Your task to perform on an android device: see tabs open on other devices in the chrome app Image 0: 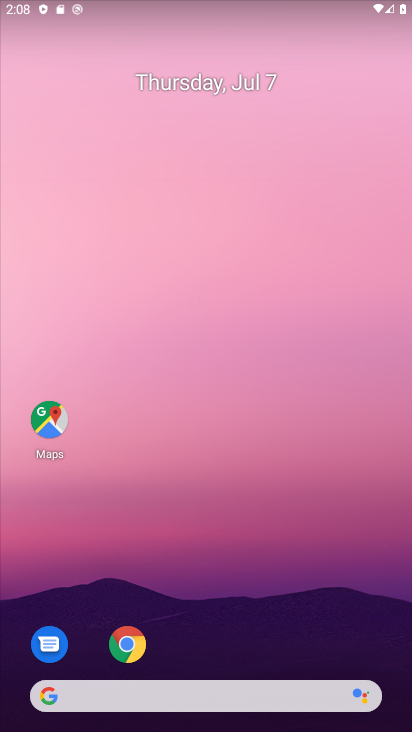
Step 0: drag from (268, 623) to (242, 152)
Your task to perform on an android device: see tabs open on other devices in the chrome app Image 1: 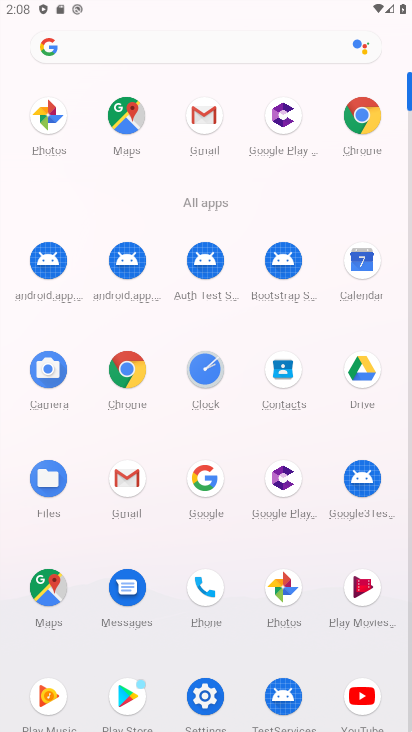
Step 1: click (372, 120)
Your task to perform on an android device: see tabs open on other devices in the chrome app Image 2: 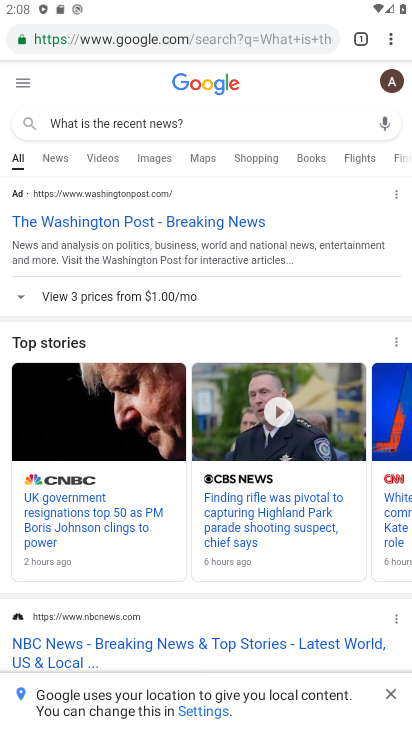
Step 2: click (397, 38)
Your task to perform on an android device: see tabs open on other devices in the chrome app Image 3: 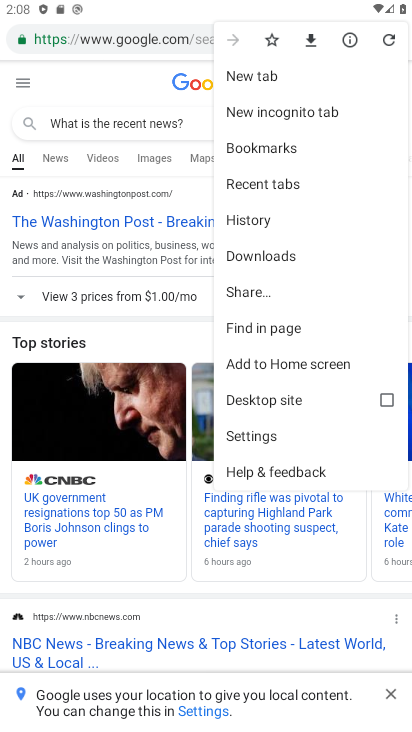
Step 3: click (321, 181)
Your task to perform on an android device: see tabs open on other devices in the chrome app Image 4: 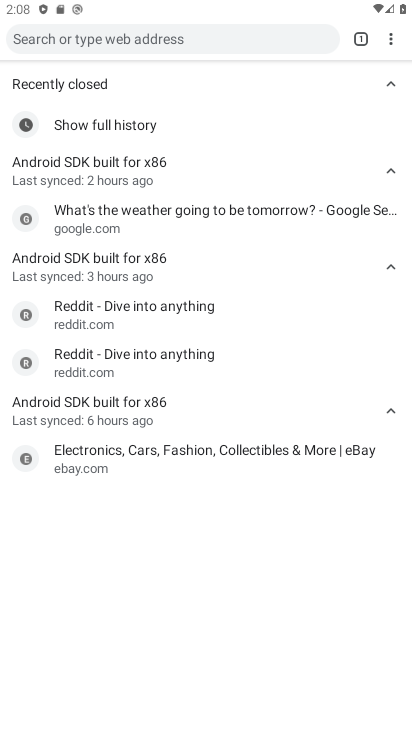
Step 4: task complete